Your task to perform on an android device: change the clock display to show seconds Image 0: 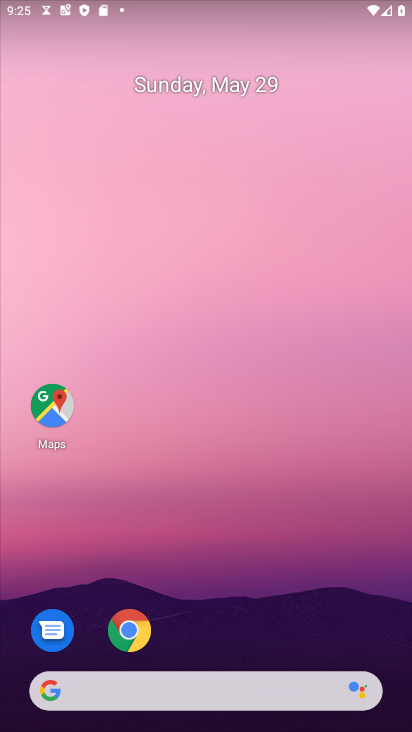
Step 0: drag from (237, 637) to (295, 11)
Your task to perform on an android device: change the clock display to show seconds Image 1: 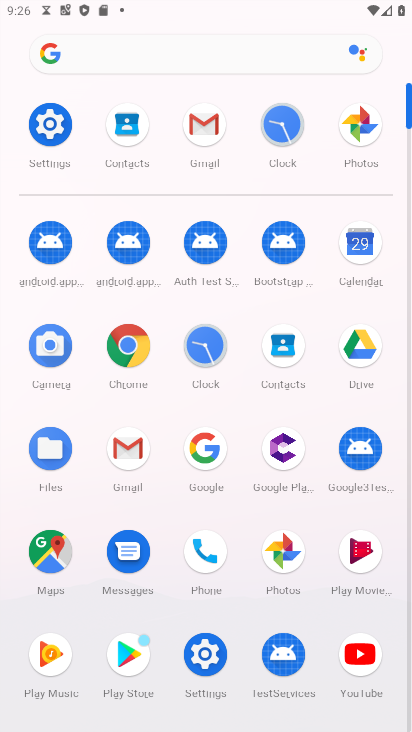
Step 1: click (202, 352)
Your task to perform on an android device: change the clock display to show seconds Image 2: 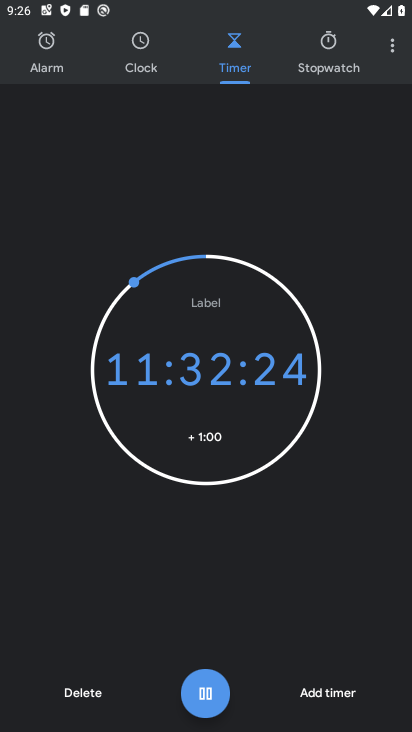
Step 2: click (400, 37)
Your task to perform on an android device: change the clock display to show seconds Image 3: 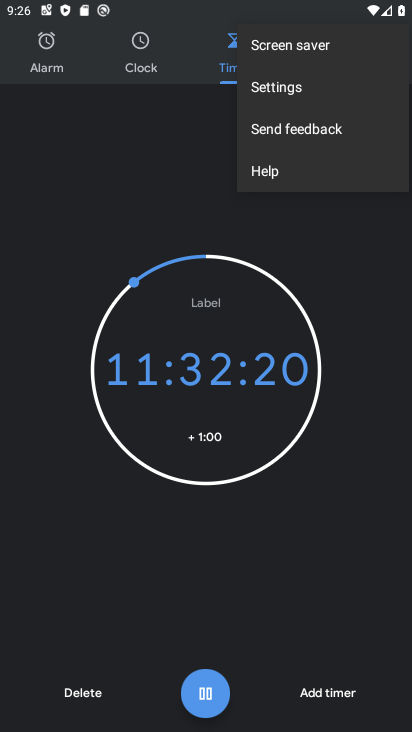
Step 3: click (290, 86)
Your task to perform on an android device: change the clock display to show seconds Image 4: 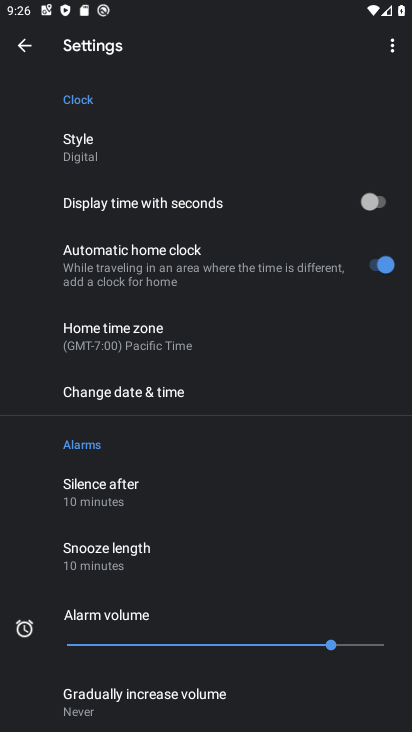
Step 4: click (381, 200)
Your task to perform on an android device: change the clock display to show seconds Image 5: 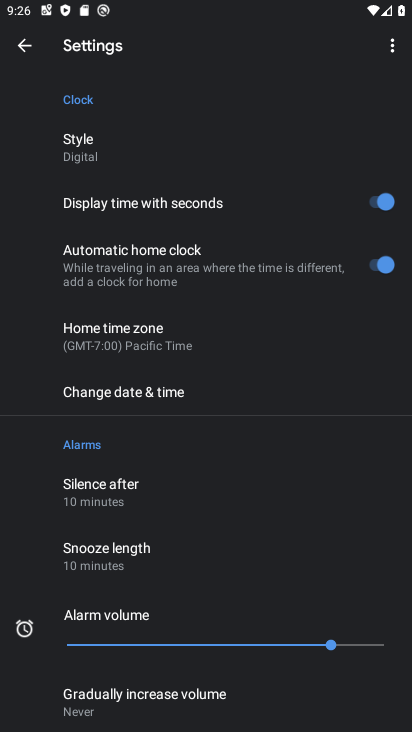
Step 5: task complete